Your task to perform on an android device: View the shopping cart on walmart.com. Search for logitech g pro on walmart.com, select the first entry, add it to the cart, then select checkout. Image 0: 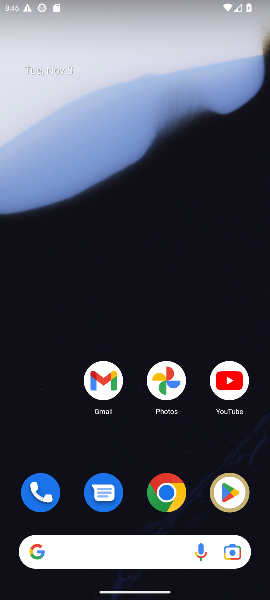
Step 0: click (164, 495)
Your task to perform on an android device: View the shopping cart on walmart.com. Search for logitech g pro on walmart.com, select the first entry, add it to the cart, then select checkout. Image 1: 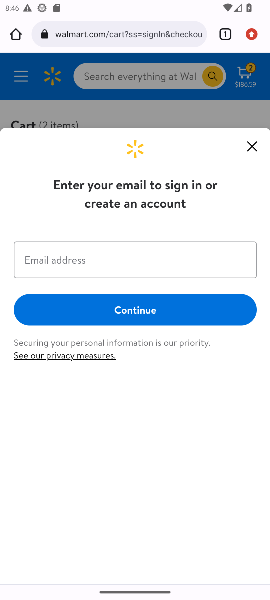
Step 1: click (254, 147)
Your task to perform on an android device: View the shopping cart on walmart.com. Search for logitech g pro on walmart.com, select the first entry, add it to the cart, then select checkout. Image 2: 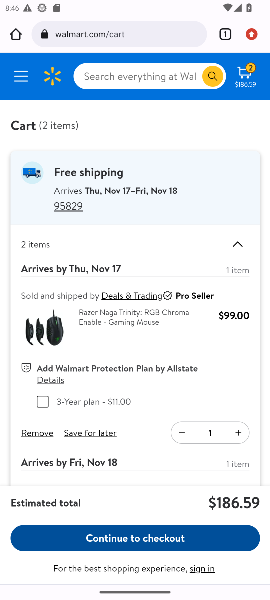
Step 2: click (167, 74)
Your task to perform on an android device: View the shopping cart on walmart.com. Search for logitech g pro on walmart.com, select the first entry, add it to the cart, then select checkout. Image 3: 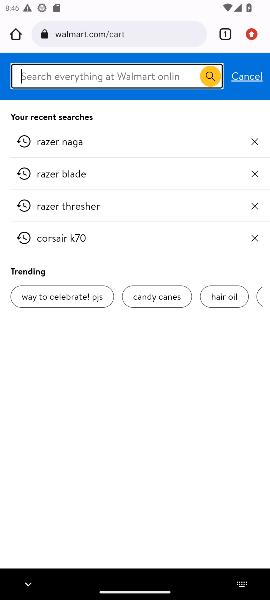
Step 3: type "logitech g pro"
Your task to perform on an android device: View the shopping cart on walmart.com. Search for logitech g pro on walmart.com, select the first entry, add it to the cart, then select checkout. Image 4: 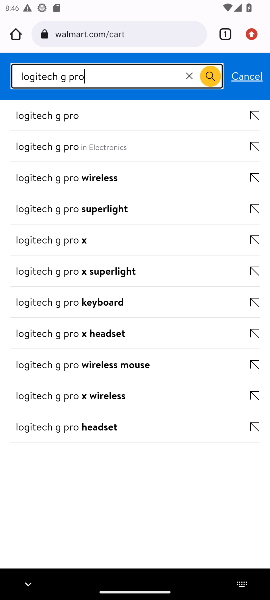
Step 4: click (66, 120)
Your task to perform on an android device: View the shopping cart on walmart.com. Search for logitech g pro on walmart.com, select the first entry, add it to the cart, then select checkout. Image 5: 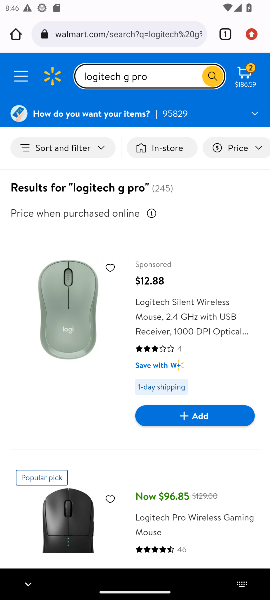
Step 5: drag from (197, 494) to (186, 248)
Your task to perform on an android device: View the shopping cart on walmart.com. Search for logitech g pro on walmart.com, select the first entry, add it to the cart, then select checkout. Image 6: 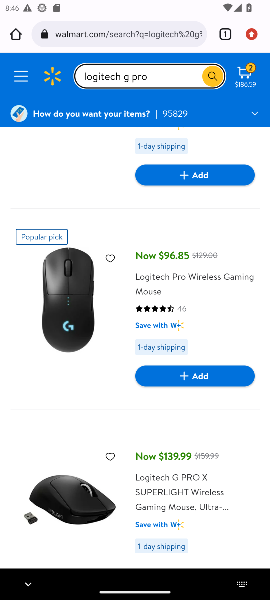
Step 6: click (70, 496)
Your task to perform on an android device: View the shopping cart on walmart.com. Search for logitech g pro on walmart.com, select the first entry, add it to the cart, then select checkout. Image 7: 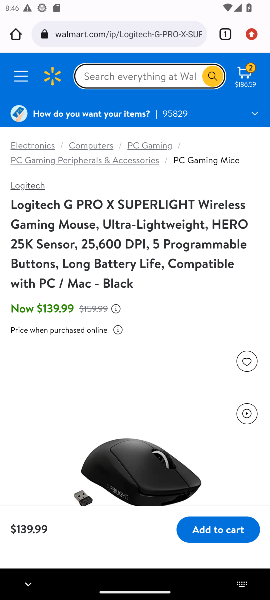
Step 7: click (211, 528)
Your task to perform on an android device: View the shopping cart on walmart.com. Search for logitech g pro on walmart.com, select the first entry, add it to the cart, then select checkout. Image 8: 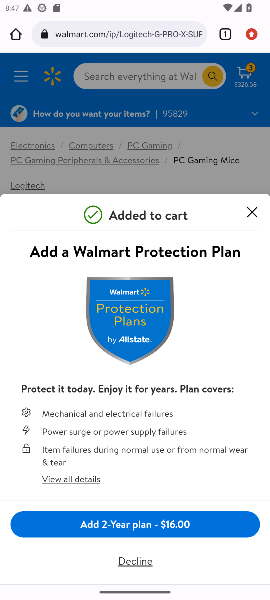
Step 8: click (252, 212)
Your task to perform on an android device: View the shopping cart on walmart.com. Search for logitech g pro on walmart.com, select the first entry, add it to the cart, then select checkout. Image 9: 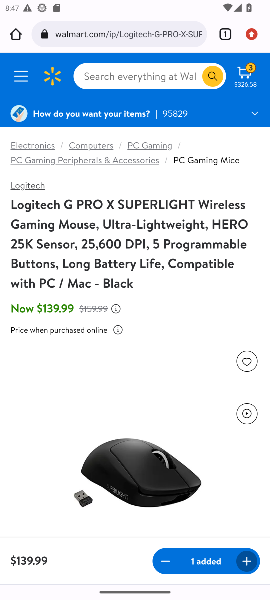
Step 9: click (245, 74)
Your task to perform on an android device: View the shopping cart on walmart.com. Search for logitech g pro on walmart.com, select the first entry, add it to the cart, then select checkout. Image 10: 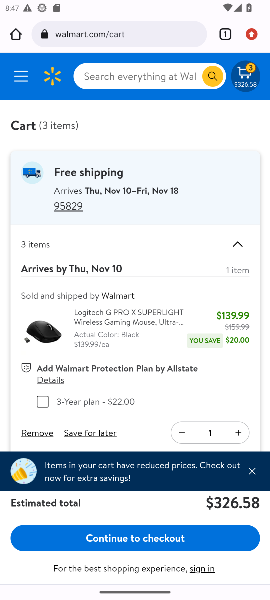
Step 10: click (249, 76)
Your task to perform on an android device: View the shopping cart on walmart.com. Search for logitech g pro on walmart.com, select the first entry, add it to the cart, then select checkout. Image 11: 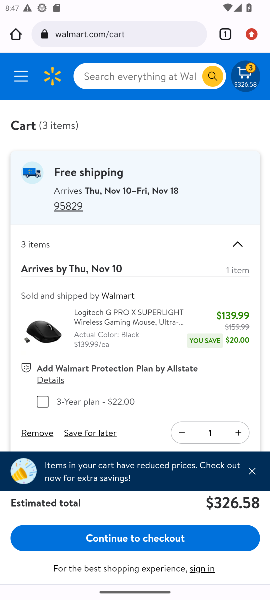
Step 11: click (249, 76)
Your task to perform on an android device: View the shopping cart on walmart.com. Search for logitech g pro on walmart.com, select the first entry, add it to the cart, then select checkout. Image 12: 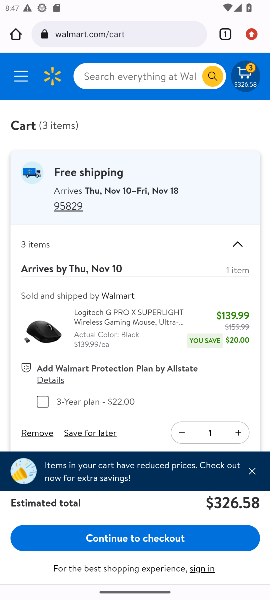
Step 12: click (168, 539)
Your task to perform on an android device: View the shopping cart on walmart.com. Search for logitech g pro on walmart.com, select the first entry, add it to the cart, then select checkout. Image 13: 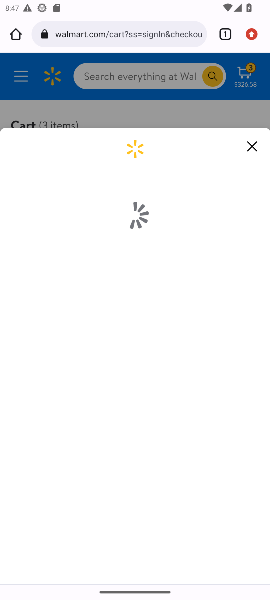
Step 13: task complete